Your task to perform on an android device: turn smart compose on in the gmail app Image 0: 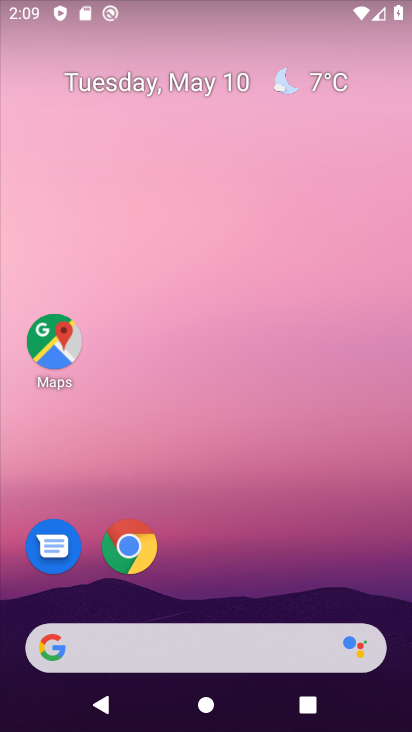
Step 0: drag from (254, 544) to (276, 133)
Your task to perform on an android device: turn smart compose on in the gmail app Image 1: 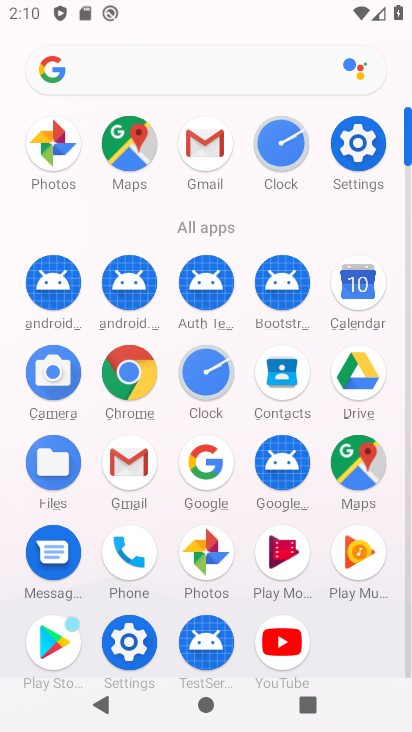
Step 1: click (134, 464)
Your task to perform on an android device: turn smart compose on in the gmail app Image 2: 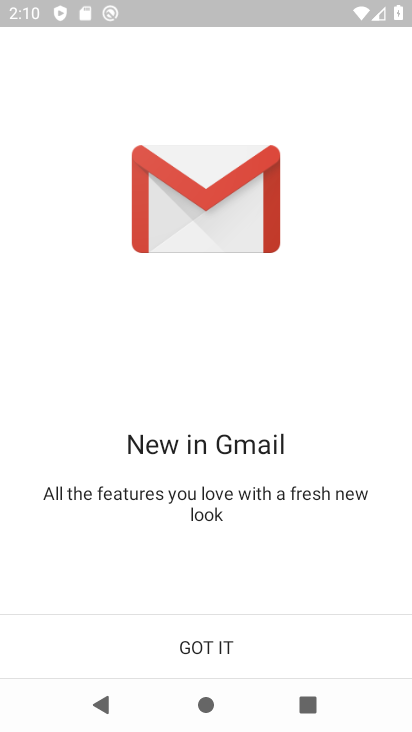
Step 2: click (220, 653)
Your task to perform on an android device: turn smart compose on in the gmail app Image 3: 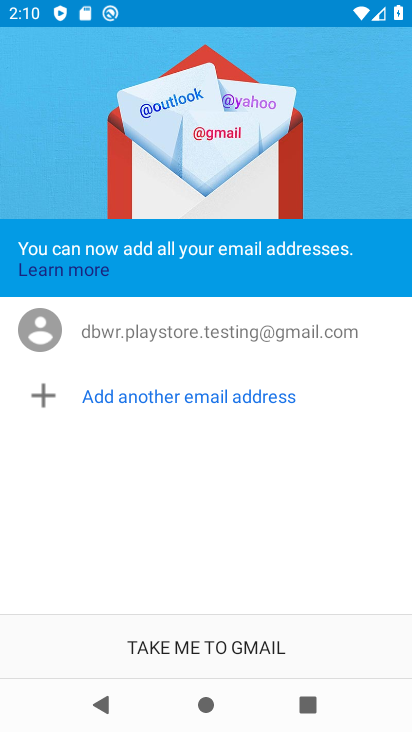
Step 3: click (216, 638)
Your task to perform on an android device: turn smart compose on in the gmail app Image 4: 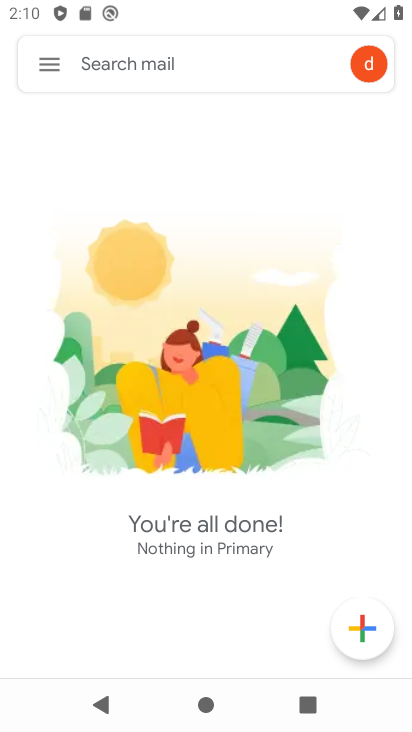
Step 4: click (41, 70)
Your task to perform on an android device: turn smart compose on in the gmail app Image 5: 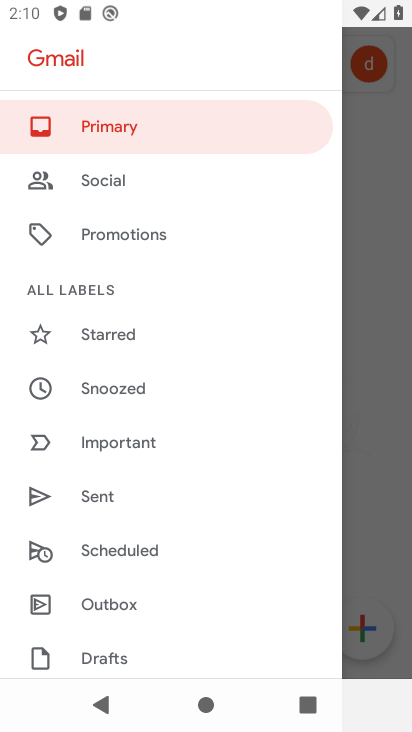
Step 5: drag from (155, 608) to (217, 150)
Your task to perform on an android device: turn smart compose on in the gmail app Image 6: 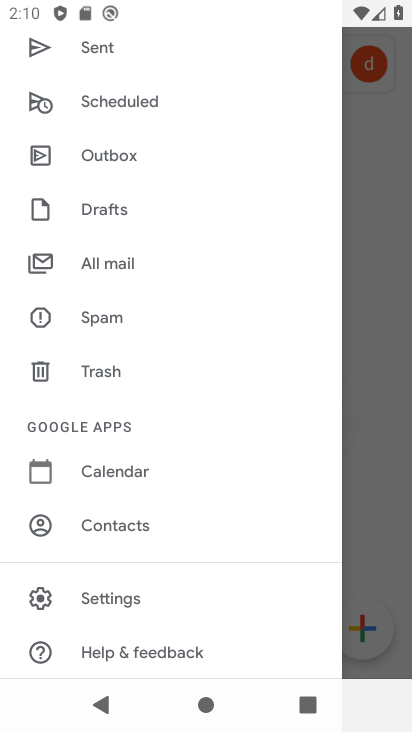
Step 6: click (157, 602)
Your task to perform on an android device: turn smart compose on in the gmail app Image 7: 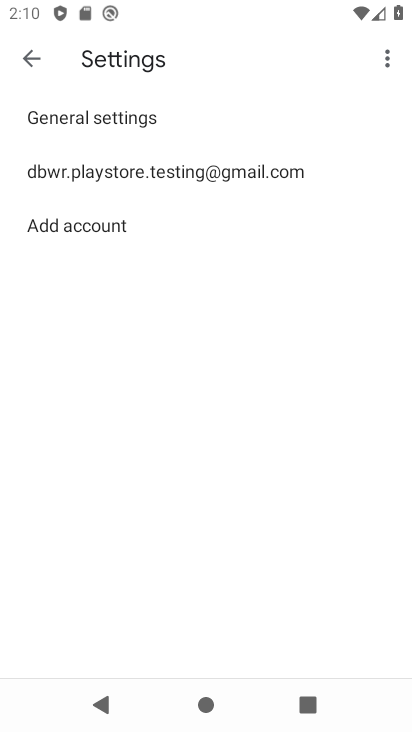
Step 7: click (163, 175)
Your task to perform on an android device: turn smart compose on in the gmail app Image 8: 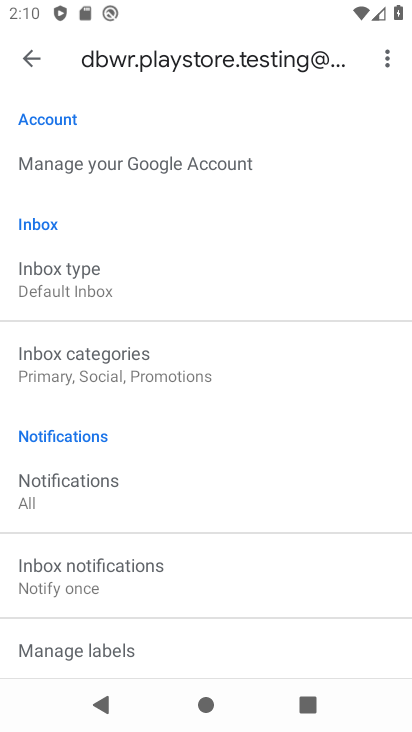
Step 8: task complete